Your task to perform on an android device: What's on my calendar tomorrow? Image 0: 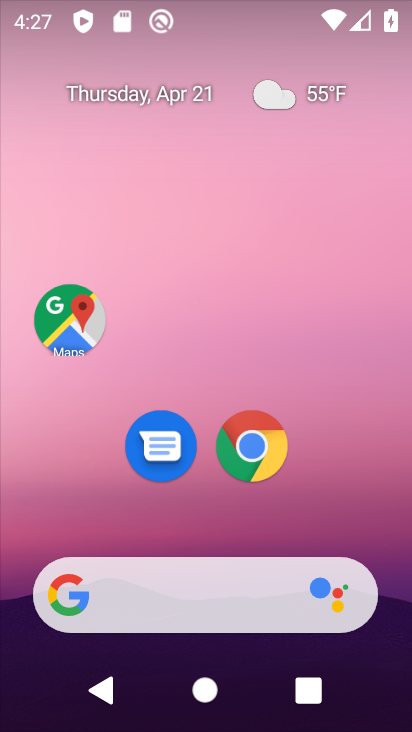
Step 0: click (119, 100)
Your task to perform on an android device: What's on my calendar tomorrow? Image 1: 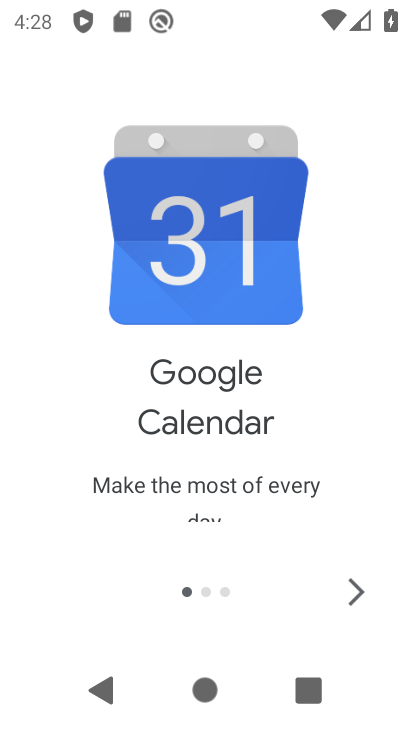
Step 1: click (356, 613)
Your task to perform on an android device: What's on my calendar tomorrow? Image 2: 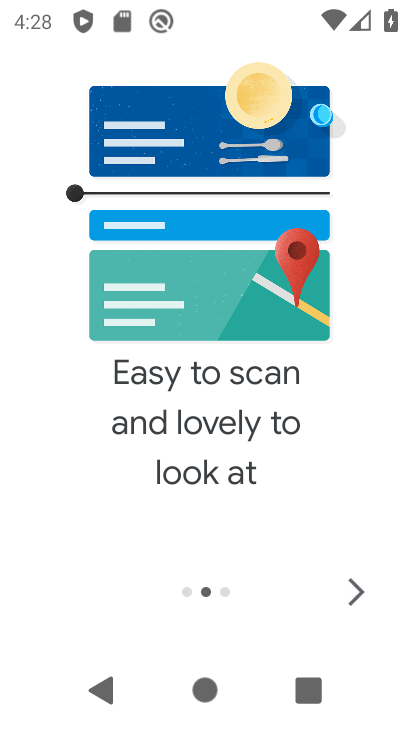
Step 2: click (356, 613)
Your task to perform on an android device: What's on my calendar tomorrow? Image 3: 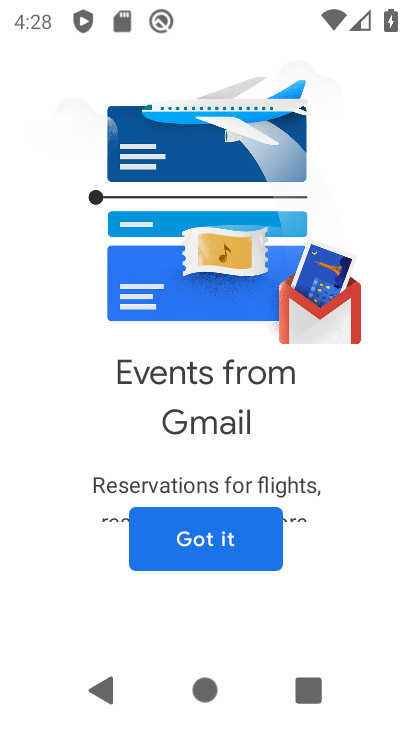
Step 3: click (208, 558)
Your task to perform on an android device: What's on my calendar tomorrow? Image 4: 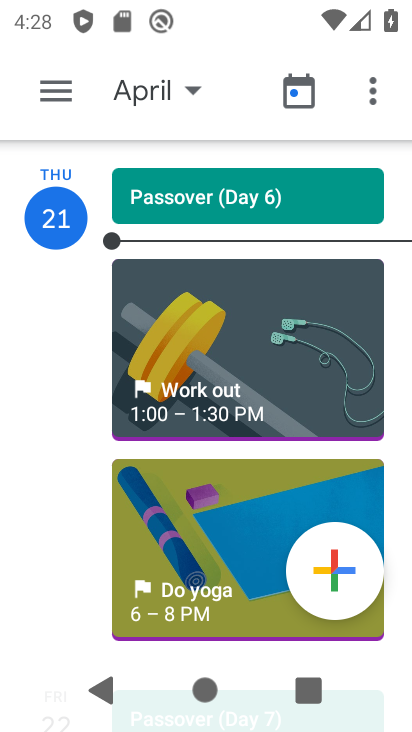
Step 4: click (179, 106)
Your task to perform on an android device: What's on my calendar tomorrow? Image 5: 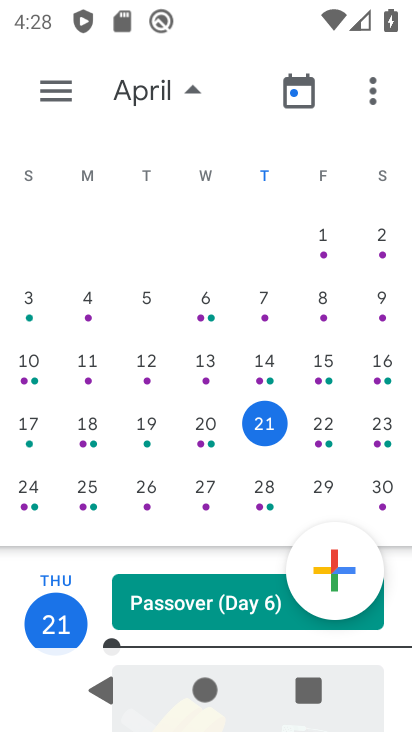
Step 5: click (333, 438)
Your task to perform on an android device: What's on my calendar tomorrow? Image 6: 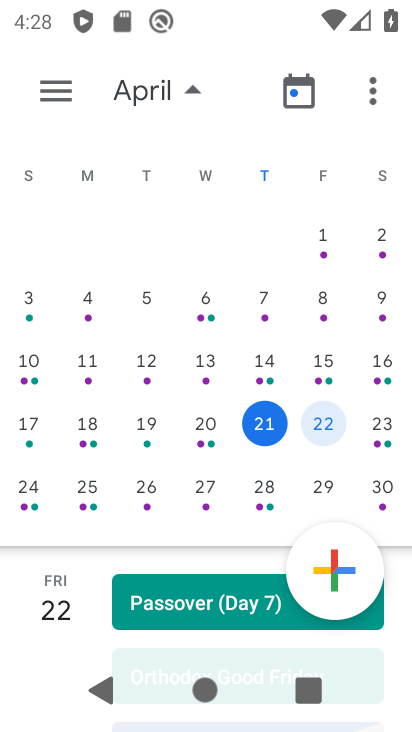
Step 6: task complete